Your task to perform on an android device: Open the calendar and show me this week's events? Image 0: 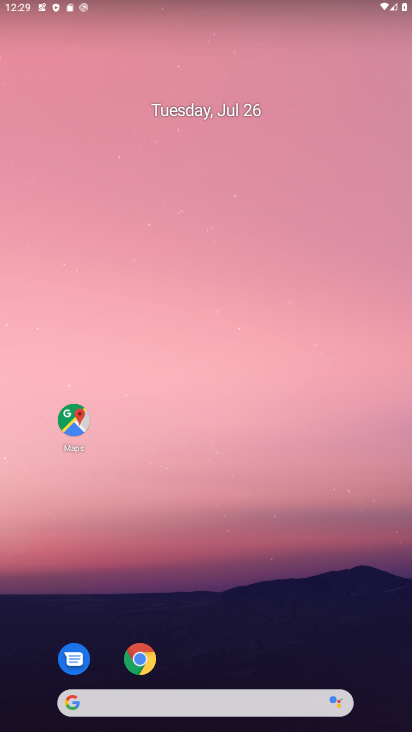
Step 0: drag from (213, 668) to (199, 370)
Your task to perform on an android device: Open the calendar and show me this week's events? Image 1: 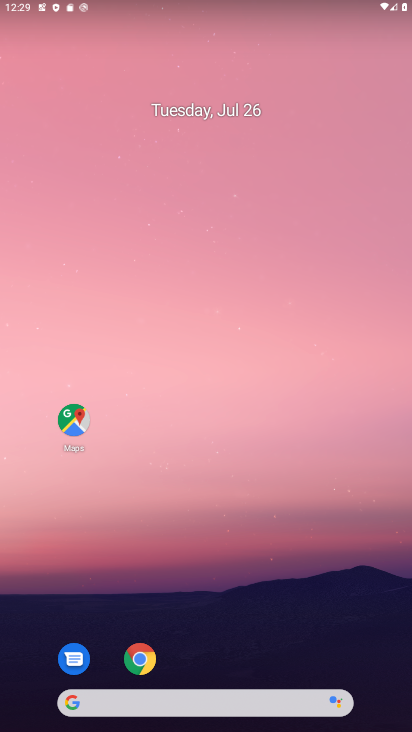
Step 1: drag from (179, 661) to (183, 290)
Your task to perform on an android device: Open the calendar and show me this week's events? Image 2: 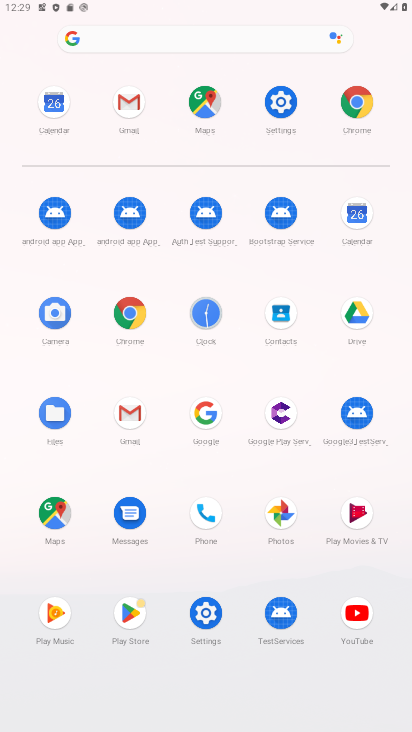
Step 2: click (360, 213)
Your task to perform on an android device: Open the calendar and show me this week's events? Image 3: 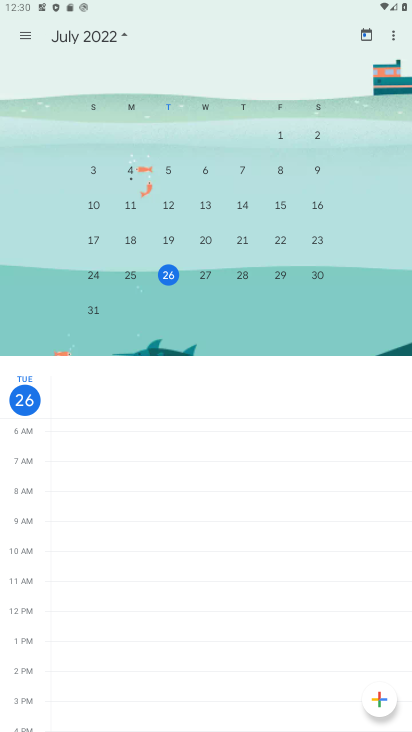
Step 3: drag from (300, 259) to (1, 287)
Your task to perform on an android device: Open the calendar and show me this week's events? Image 4: 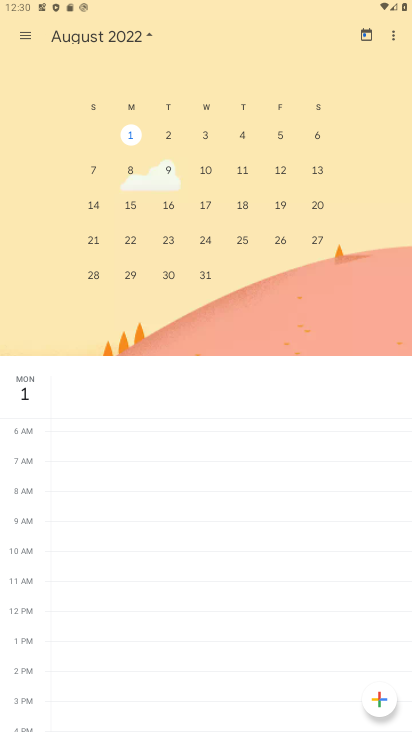
Step 4: click (244, 206)
Your task to perform on an android device: Open the calendar and show me this week's events? Image 5: 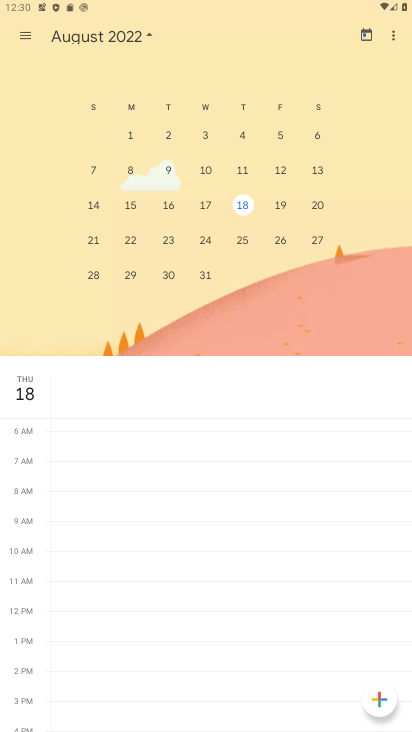
Step 5: drag from (91, 181) to (406, 138)
Your task to perform on an android device: Open the calendar and show me this week's events? Image 6: 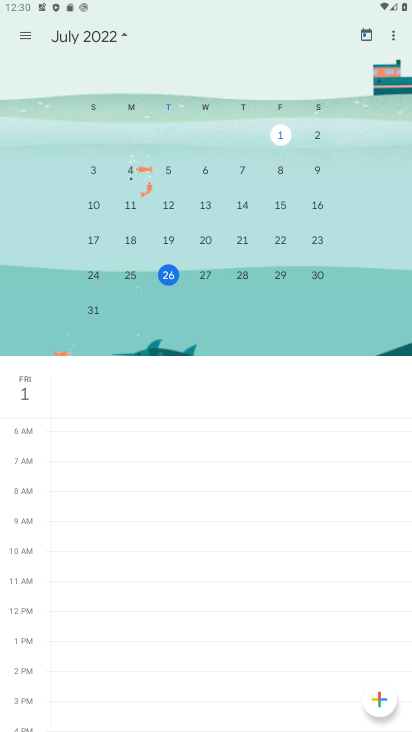
Step 6: click (318, 270)
Your task to perform on an android device: Open the calendar and show me this week's events? Image 7: 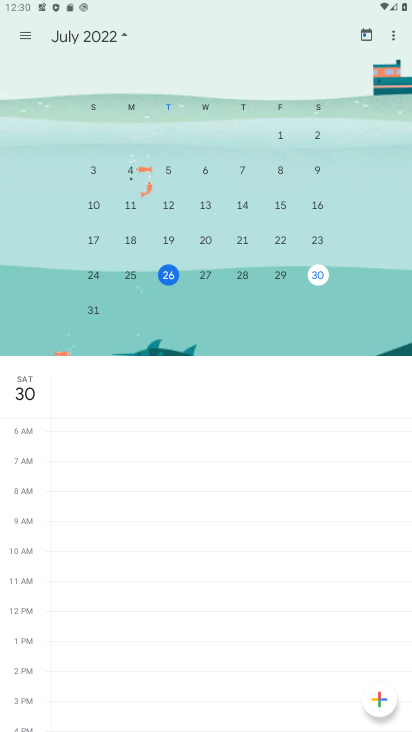
Step 7: task complete